Your task to perform on an android device: turn off translation in the chrome app Image 0: 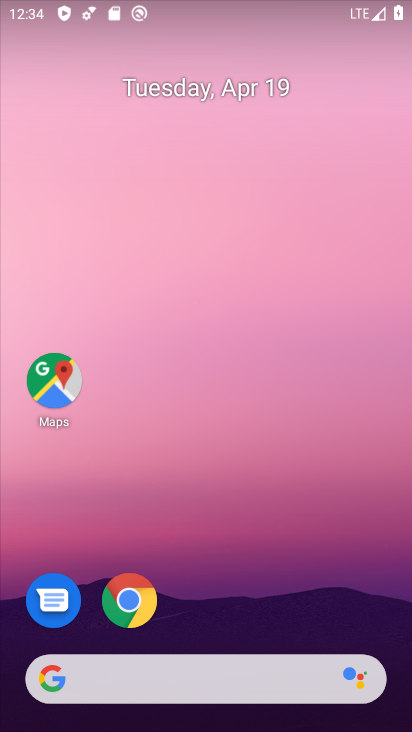
Step 0: drag from (276, 579) to (272, 81)
Your task to perform on an android device: turn off translation in the chrome app Image 1: 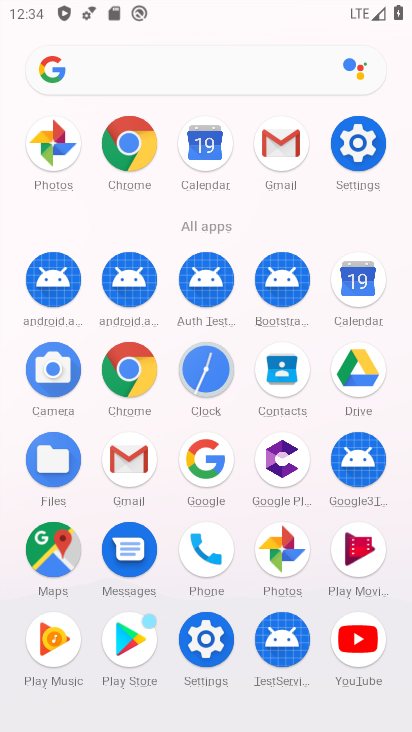
Step 1: click (136, 154)
Your task to perform on an android device: turn off translation in the chrome app Image 2: 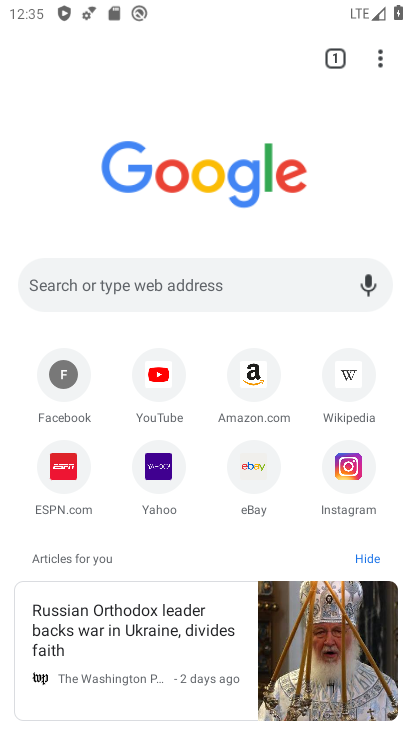
Step 2: drag from (376, 53) to (175, 491)
Your task to perform on an android device: turn off translation in the chrome app Image 3: 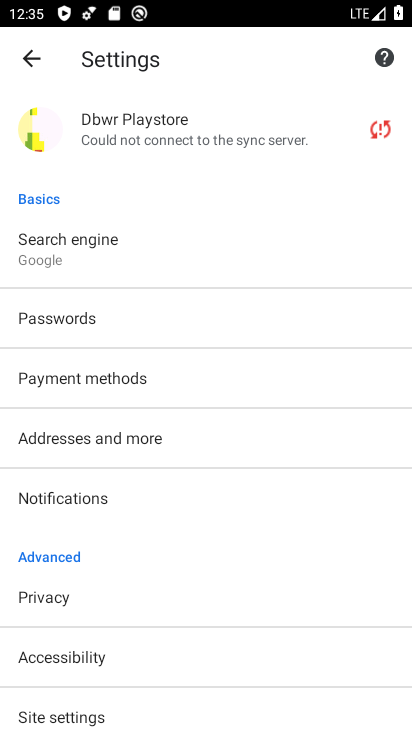
Step 3: drag from (255, 608) to (245, 221)
Your task to perform on an android device: turn off translation in the chrome app Image 4: 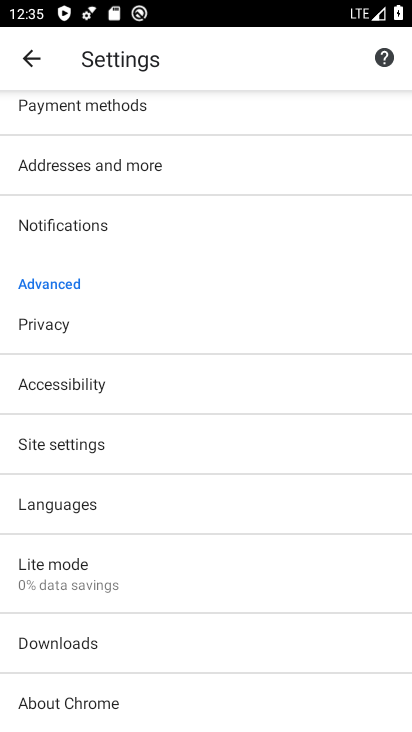
Step 4: drag from (246, 635) to (265, 359)
Your task to perform on an android device: turn off translation in the chrome app Image 5: 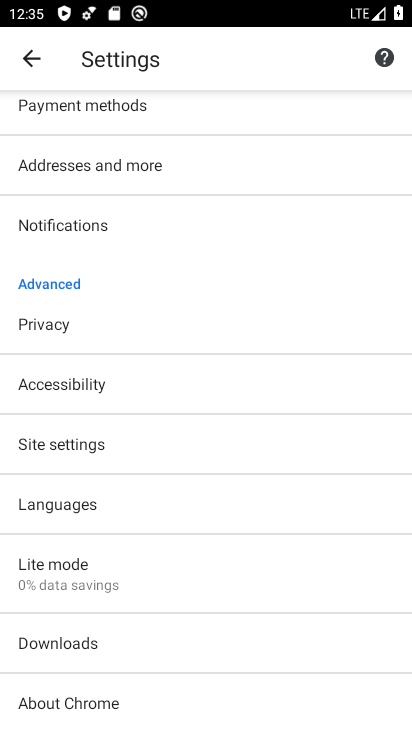
Step 5: click (79, 510)
Your task to perform on an android device: turn off translation in the chrome app Image 6: 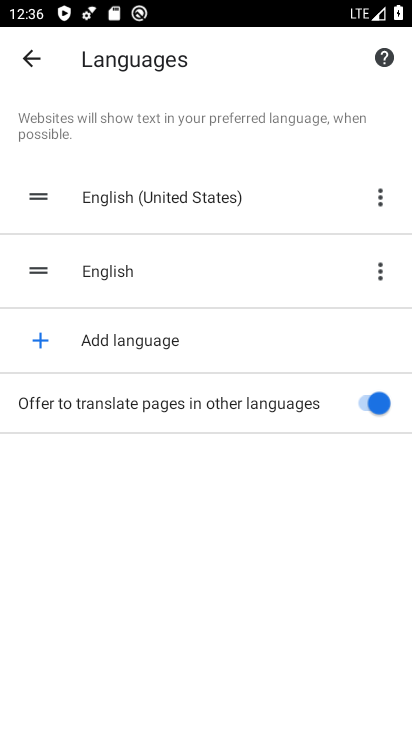
Step 6: click (367, 408)
Your task to perform on an android device: turn off translation in the chrome app Image 7: 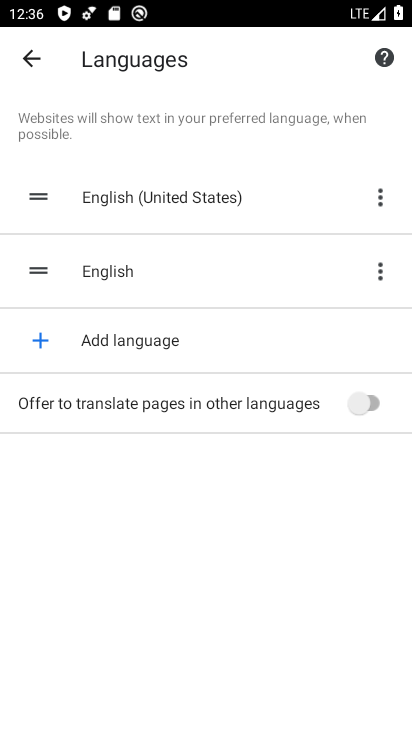
Step 7: task complete